Your task to perform on an android device: Open Amazon Image 0: 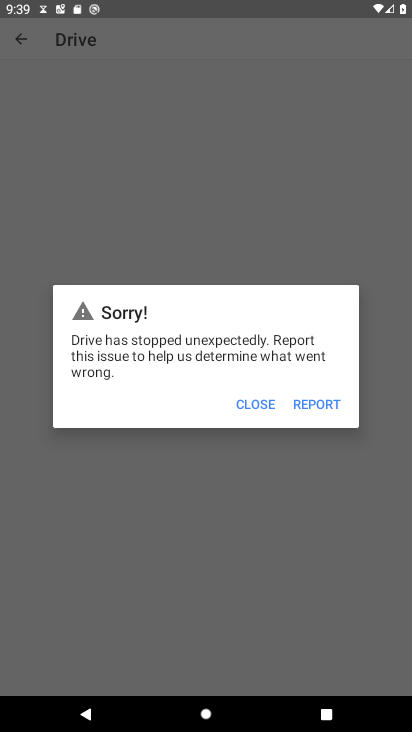
Step 0: press home button
Your task to perform on an android device: Open Amazon Image 1: 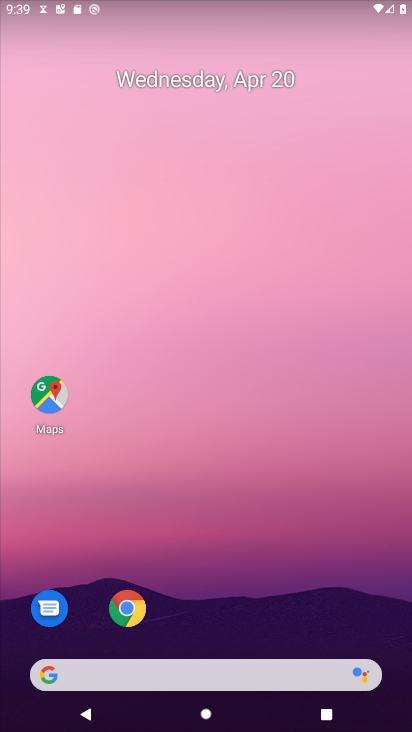
Step 1: click (128, 610)
Your task to perform on an android device: Open Amazon Image 2: 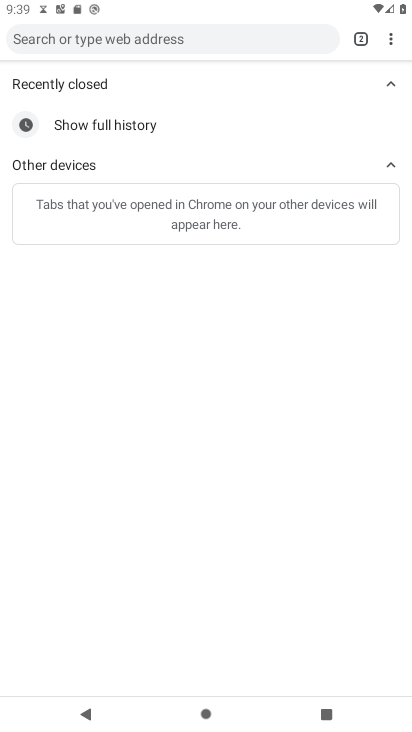
Step 2: click (139, 38)
Your task to perform on an android device: Open Amazon Image 3: 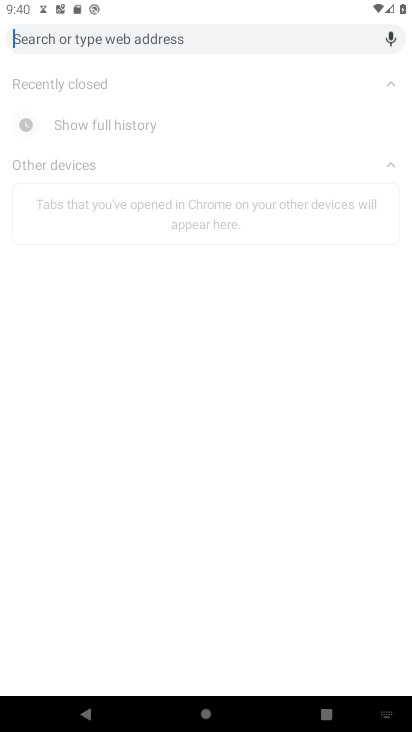
Step 3: type "Amazon"
Your task to perform on an android device: Open Amazon Image 4: 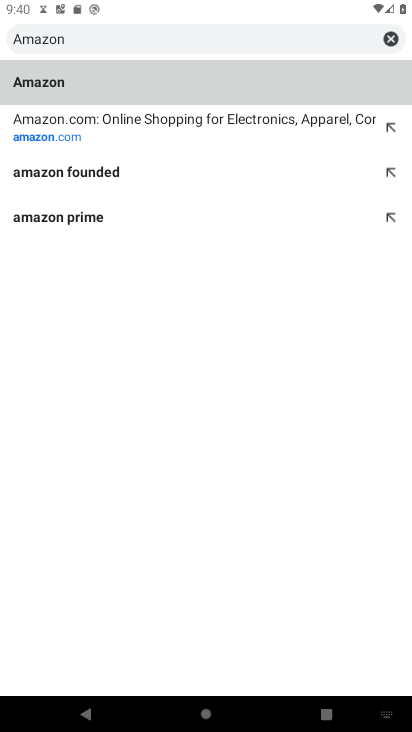
Step 4: click (124, 82)
Your task to perform on an android device: Open Amazon Image 5: 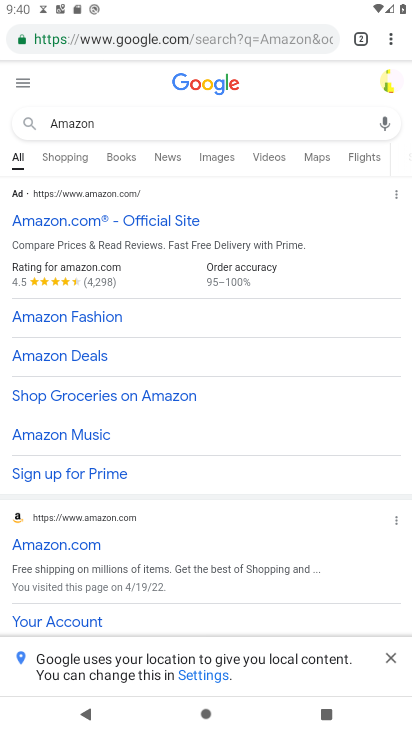
Step 5: task complete